Your task to perform on an android device: Go to Reddit.com Image 0: 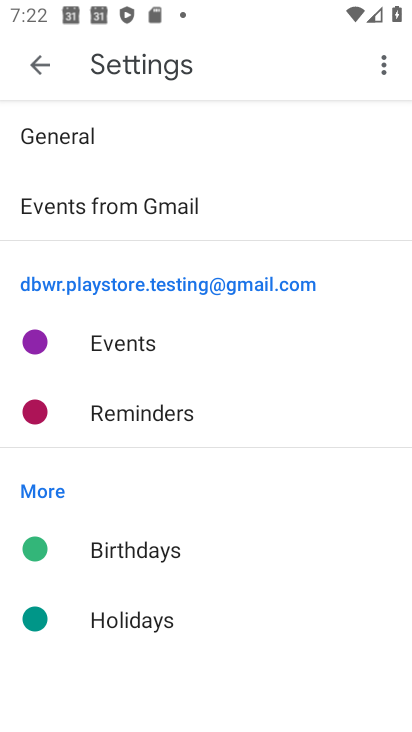
Step 0: press home button
Your task to perform on an android device: Go to Reddit.com Image 1: 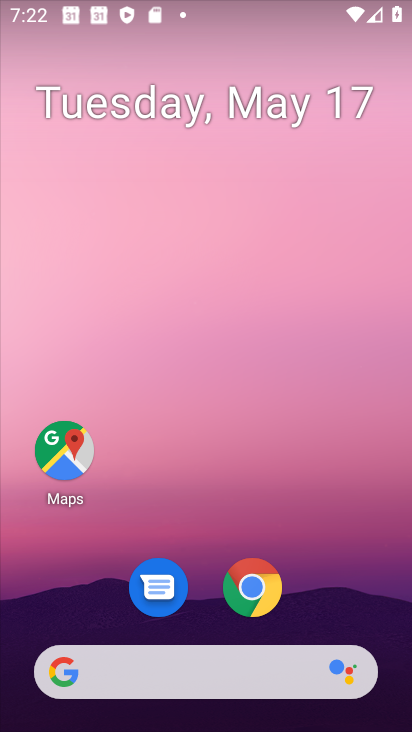
Step 1: drag from (242, 680) to (298, 289)
Your task to perform on an android device: Go to Reddit.com Image 2: 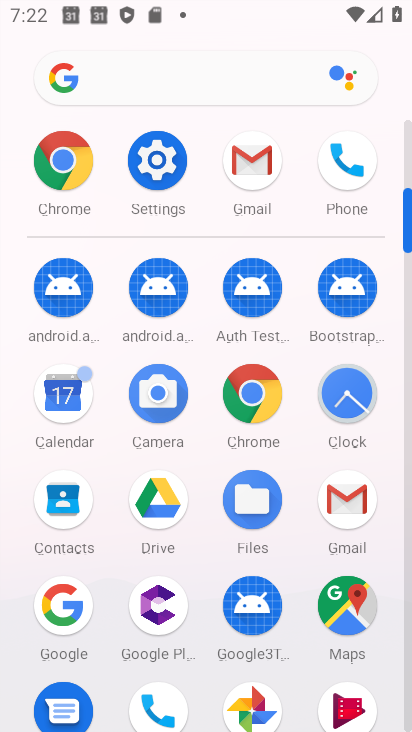
Step 2: click (43, 160)
Your task to perform on an android device: Go to Reddit.com Image 3: 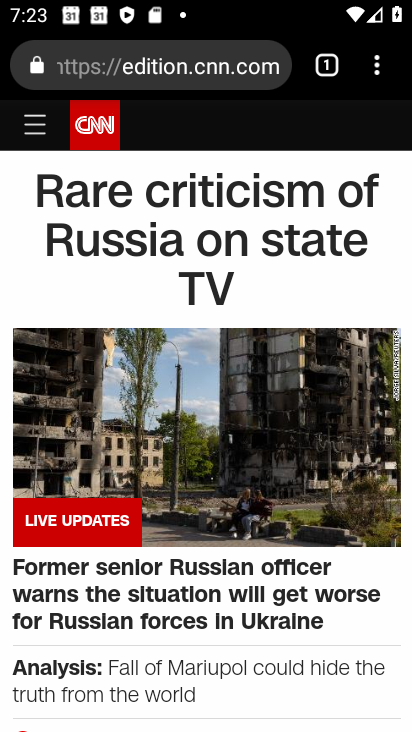
Step 3: click (192, 68)
Your task to perform on an android device: Go to Reddit.com Image 4: 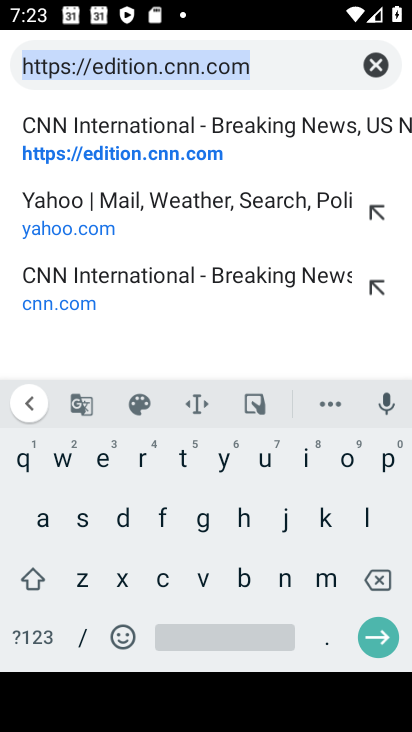
Step 4: click (372, 61)
Your task to perform on an android device: Go to Reddit.com Image 5: 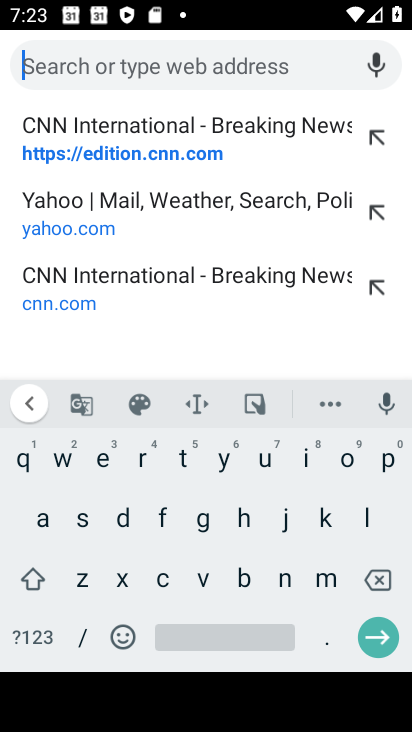
Step 5: click (144, 452)
Your task to perform on an android device: Go to Reddit.com Image 6: 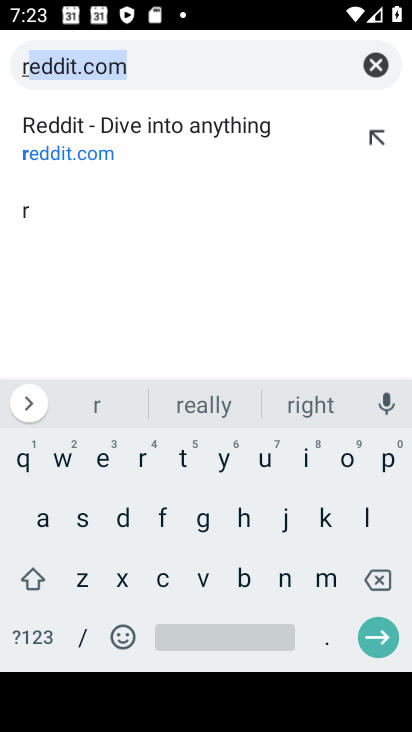
Step 6: click (106, 469)
Your task to perform on an android device: Go to Reddit.com Image 7: 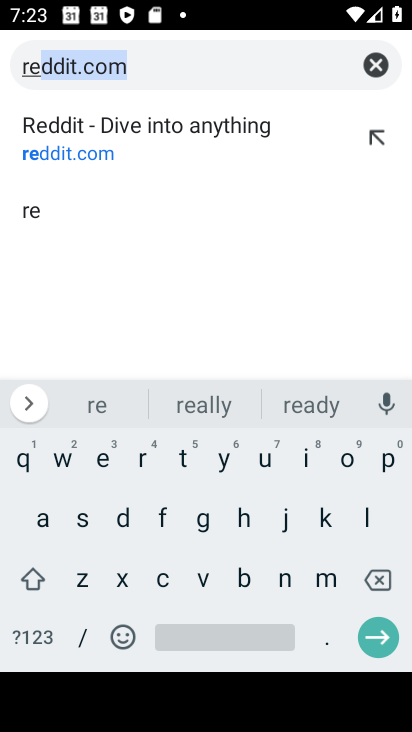
Step 7: click (188, 60)
Your task to perform on an android device: Go to Reddit.com Image 8: 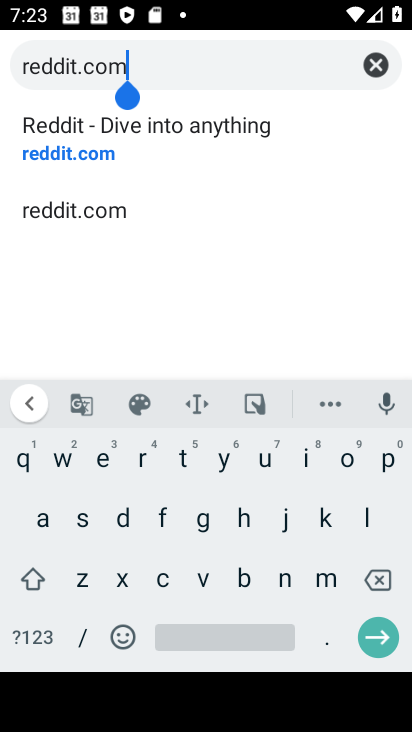
Step 8: click (374, 634)
Your task to perform on an android device: Go to Reddit.com Image 9: 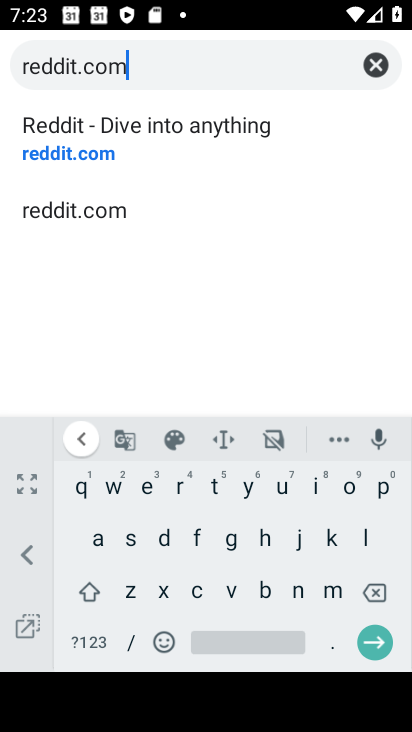
Step 9: click (379, 641)
Your task to perform on an android device: Go to Reddit.com Image 10: 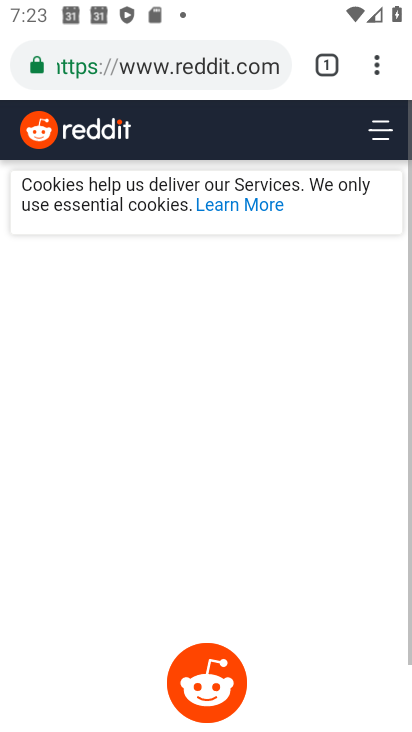
Step 10: task complete